Your task to perform on an android device: Open Chrome and go to settings Image 0: 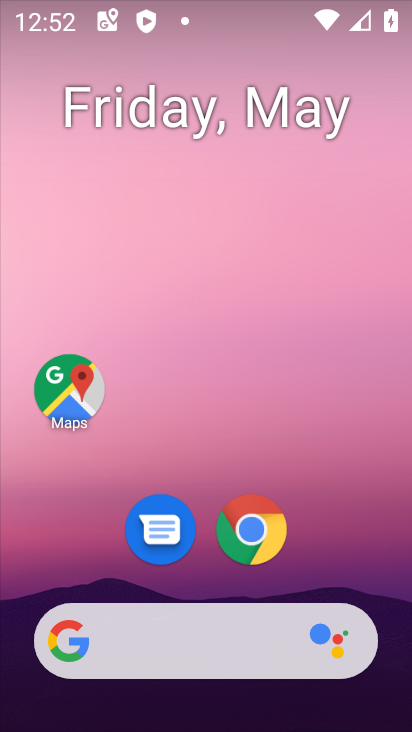
Step 0: click (278, 538)
Your task to perform on an android device: Open Chrome and go to settings Image 1: 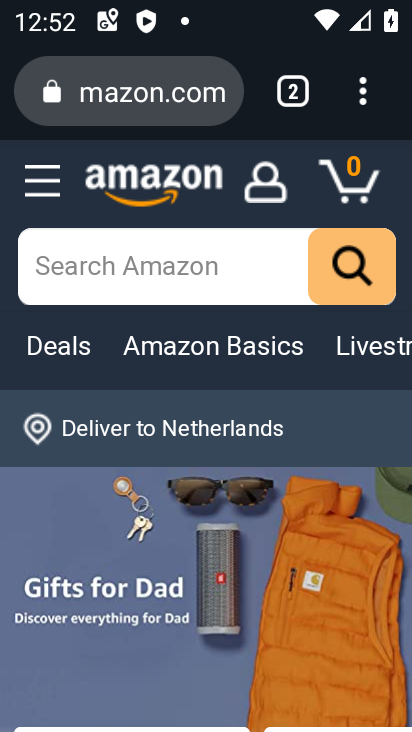
Step 1: click (375, 76)
Your task to perform on an android device: Open Chrome and go to settings Image 2: 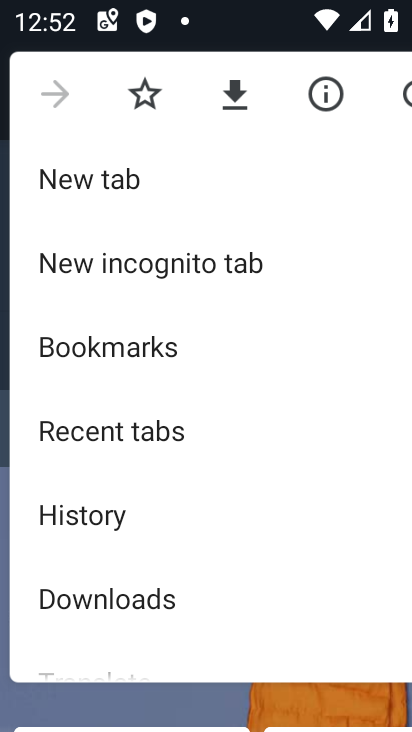
Step 2: drag from (216, 375) to (264, 209)
Your task to perform on an android device: Open Chrome and go to settings Image 3: 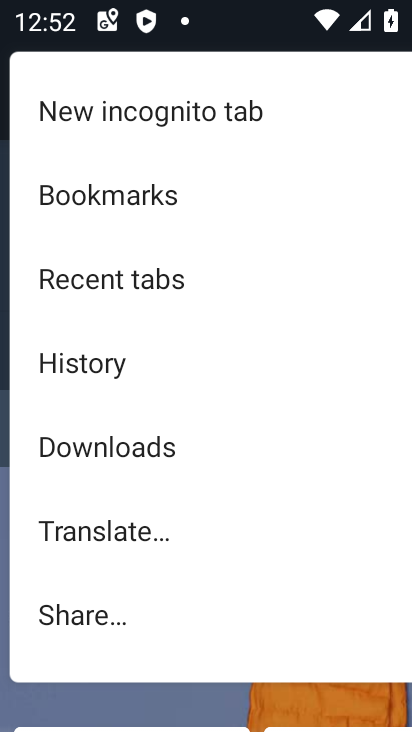
Step 3: drag from (92, 630) to (137, 277)
Your task to perform on an android device: Open Chrome and go to settings Image 4: 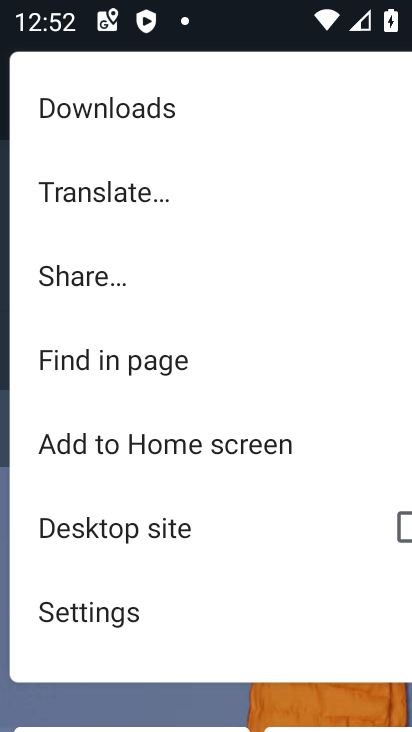
Step 4: click (171, 598)
Your task to perform on an android device: Open Chrome and go to settings Image 5: 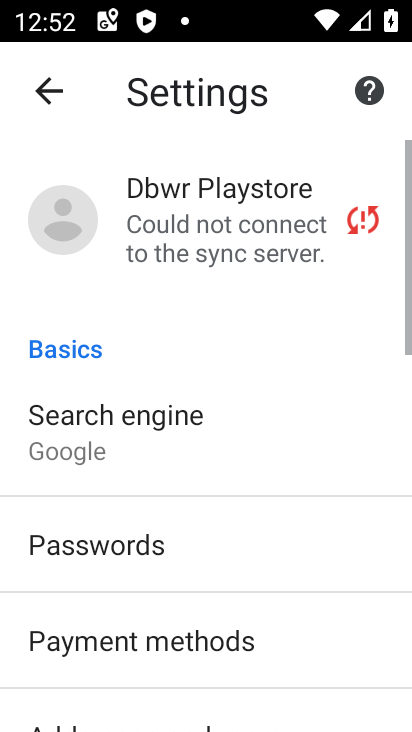
Step 5: task complete